Your task to perform on an android device: empty trash in google photos Image 0: 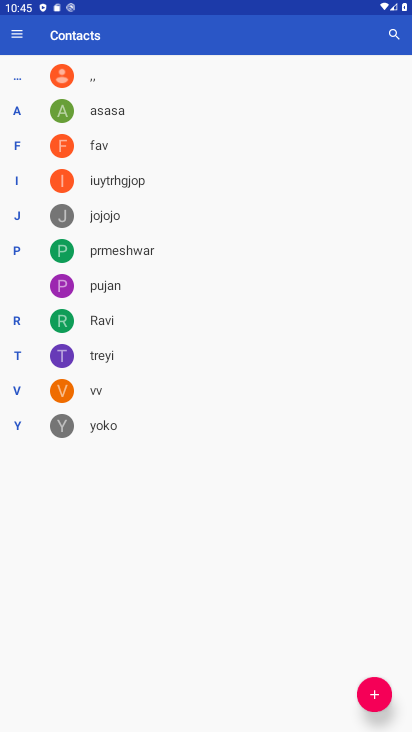
Step 0: press home button
Your task to perform on an android device: empty trash in google photos Image 1: 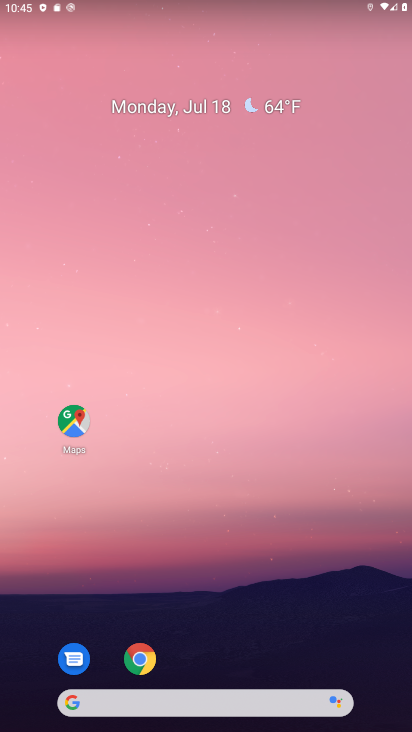
Step 1: drag from (278, 684) to (410, 699)
Your task to perform on an android device: empty trash in google photos Image 2: 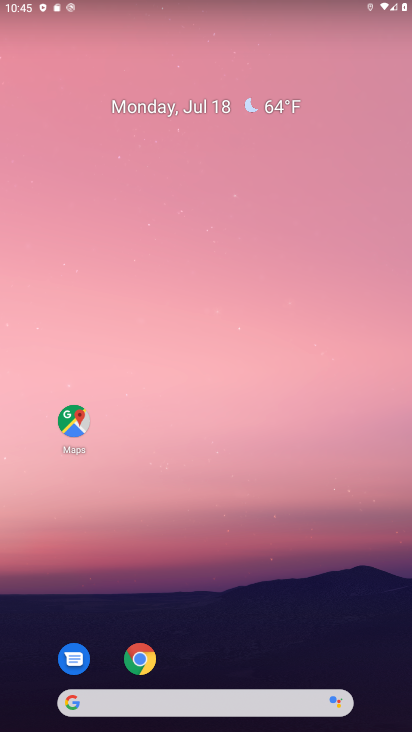
Step 2: drag from (244, 708) to (411, 292)
Your task to perform on an android device: empty trash in google photos Image 3: 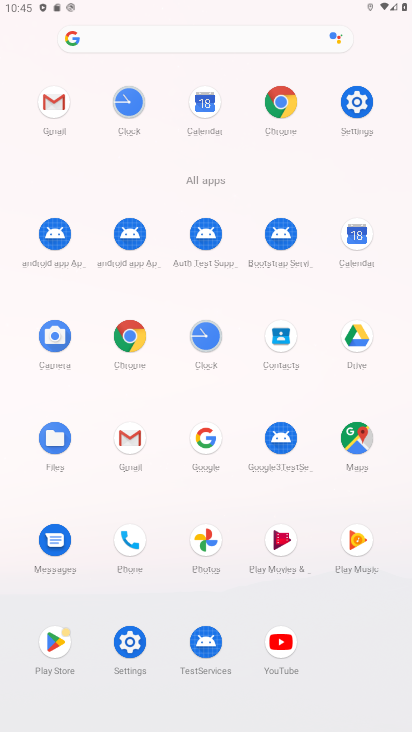
Step 3: click (201, 529)
Your task to perform on an android device: empty trash in google photos Image 4: 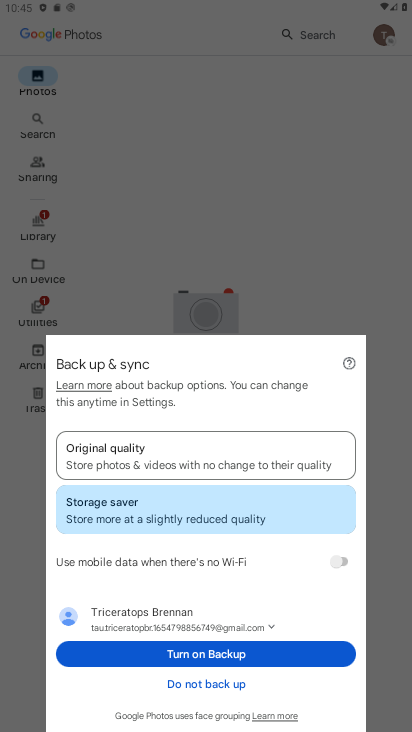
Step 4: click (321, 654)
Your task to perform on an android device: empty trash in google photos Image 5: 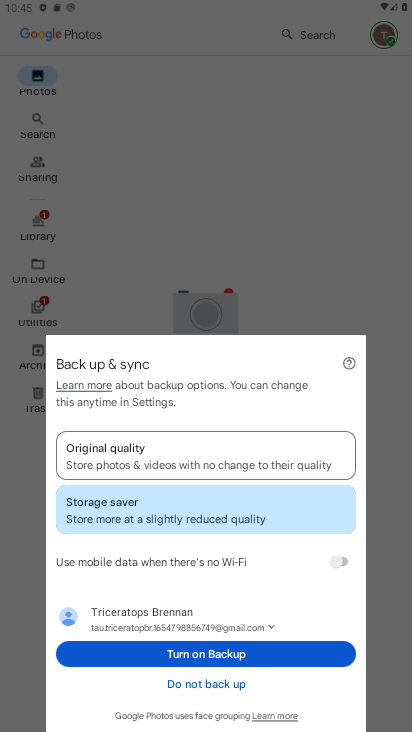
Step 5: click (308, 502)
Your task to perform on an android device: empty trash in google photos Image 6: 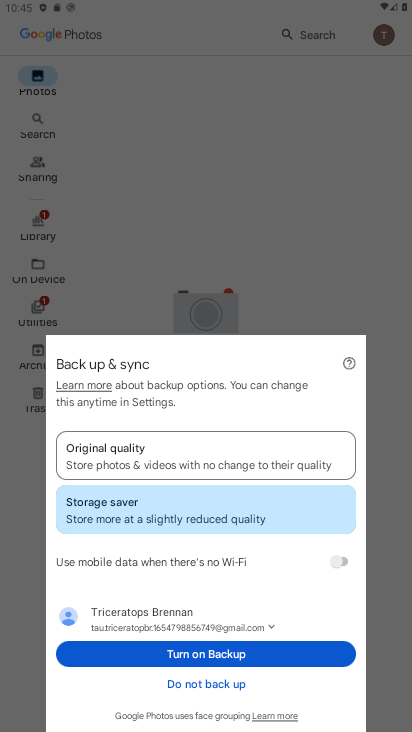
Step 6: click (258, 652)
Your task to perform on an android device: empty trash in google photos Image 7: 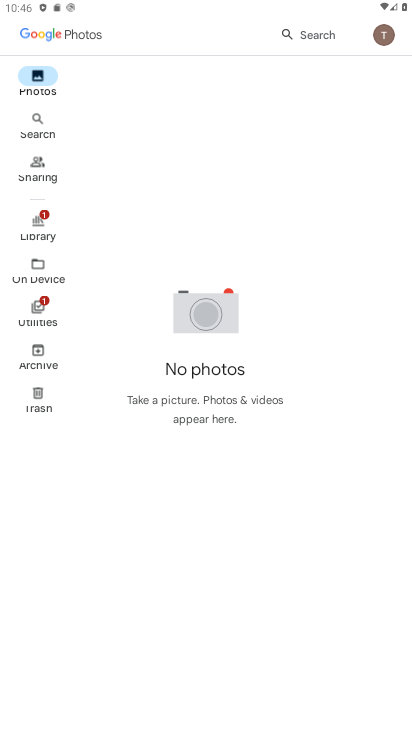
Step 7: click (42, 398)
Your task to perform on an android device: empty trash in google photos Image 8: 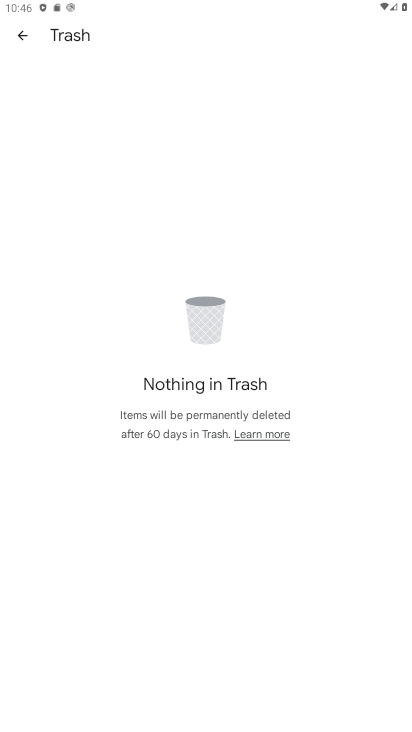
Step 8: task complete